Your task to perform on an android device: open app "Indeed Job Search" Image 0: 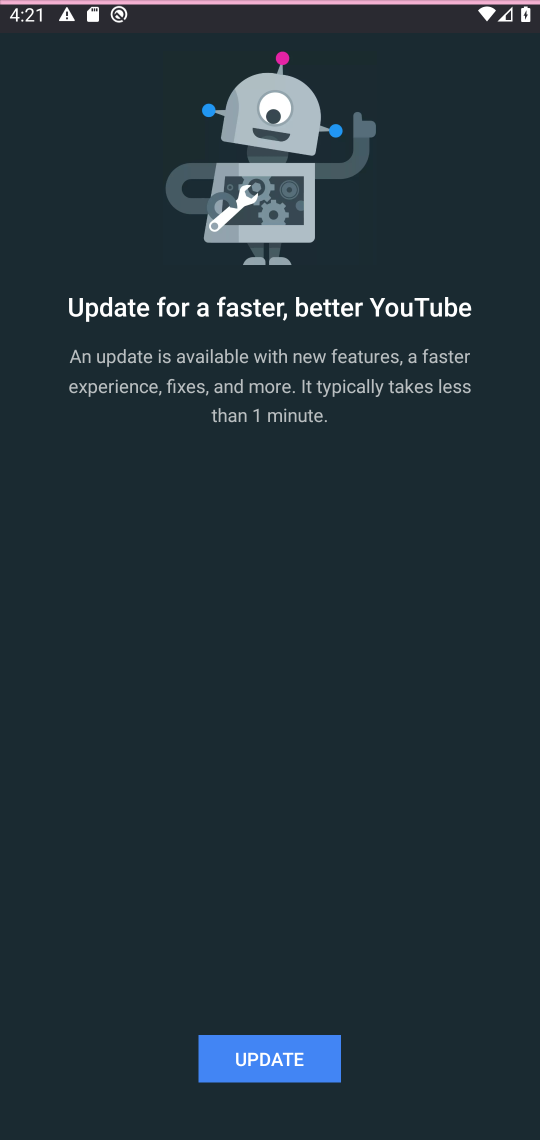
Step 0: drag from (289, 982) to (248, 254)
Your task to perform on an android device: open app "Indeed Job Search" Image 1: 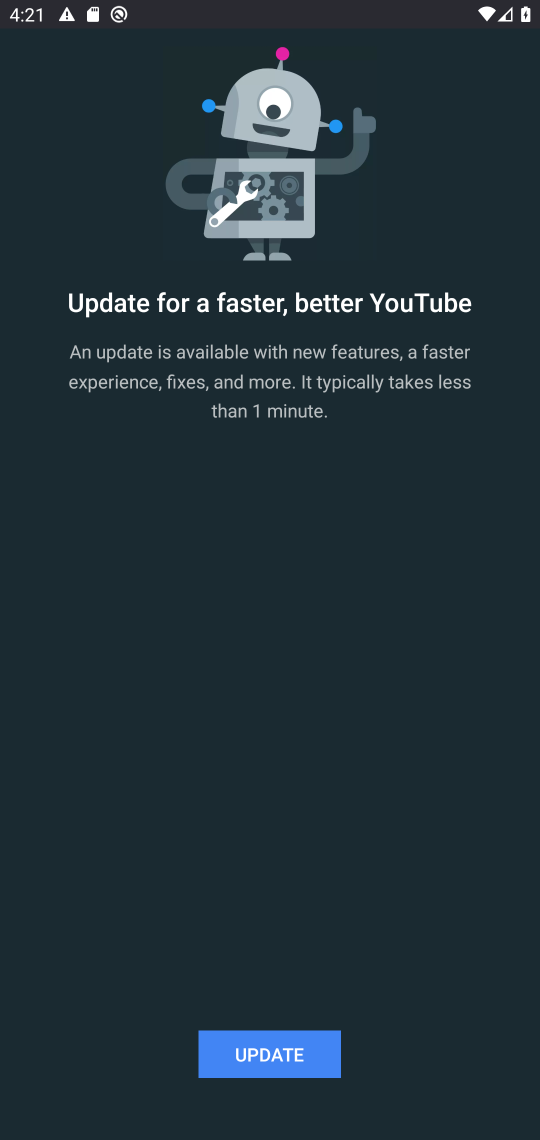
Step 1: press home button
Your task to perform on an android device: open app "Indeed Job Search" Image 2: 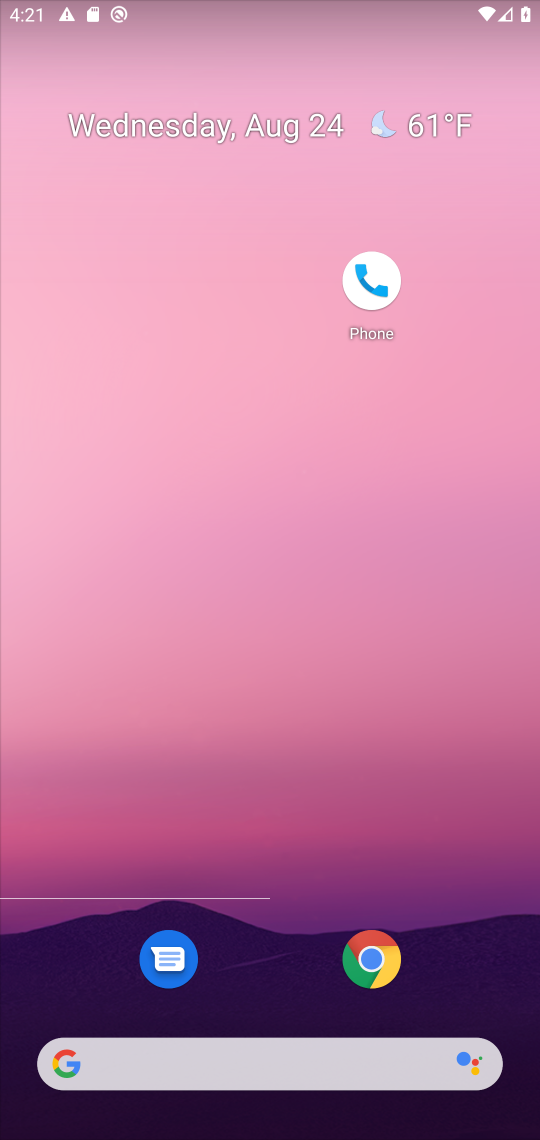
Step 2: drag from (299, 1005) to (271, 156)
Your task to perform on an android device: open app "Indeed Job Search" Image 3: 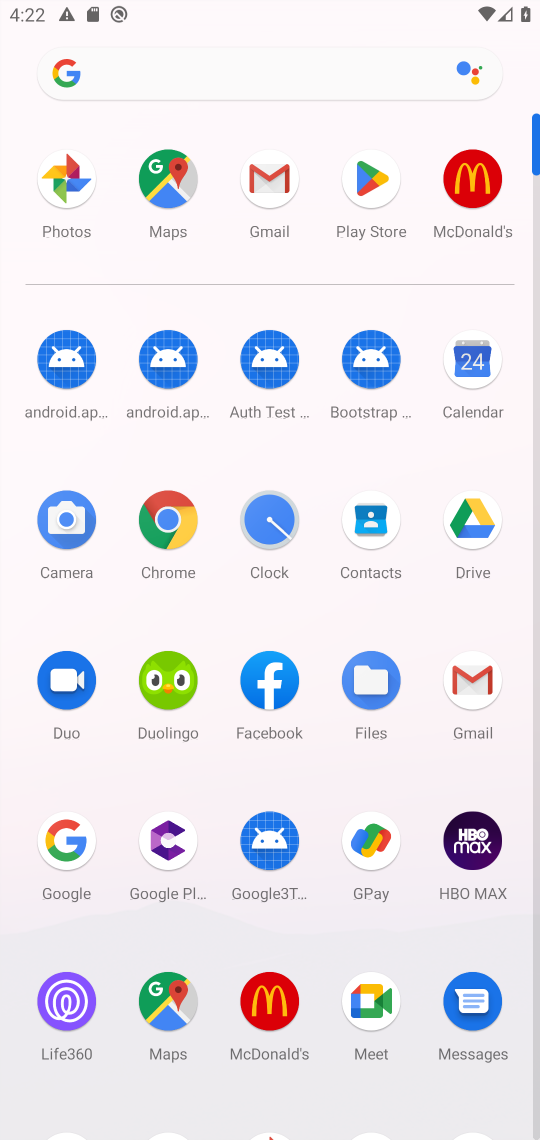
Step 3: click (367, 181)
Your task to perform on an android device: open app "Indeed Job Search" Image 4: 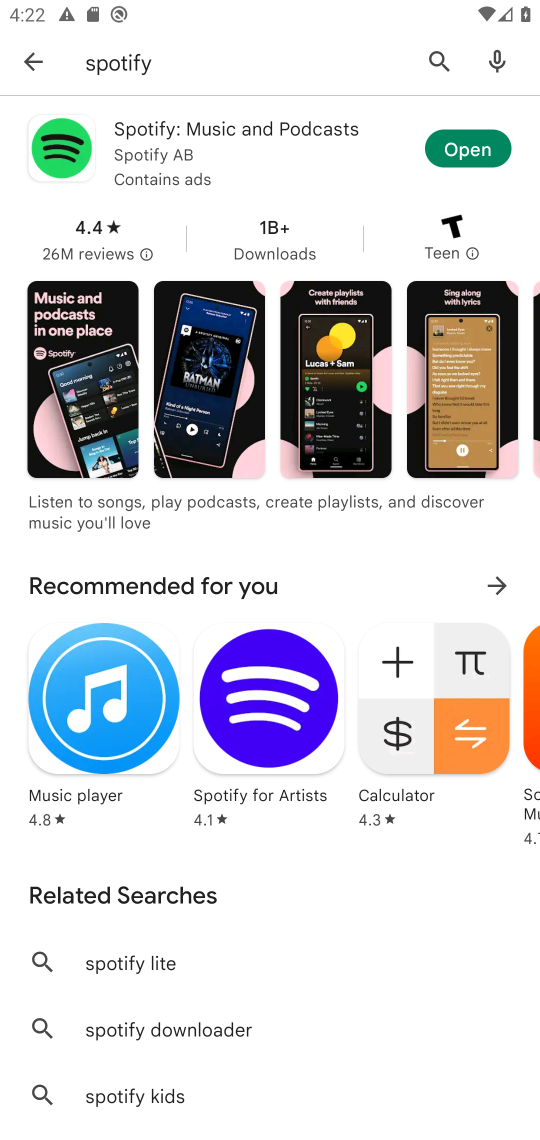
Step 4: click (438, 87)
Your task to perform on an android device: open app "Indeed Job Search" Image 5: 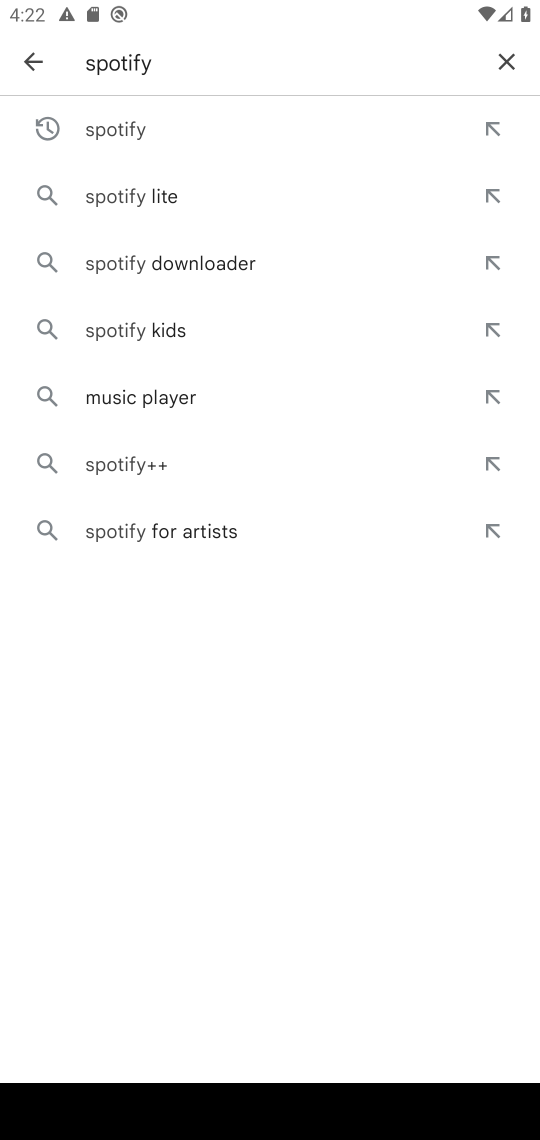
Step 5: click (509, 48)
Your task to perform on an android device: open app "Indeed Job Search" Image 6: 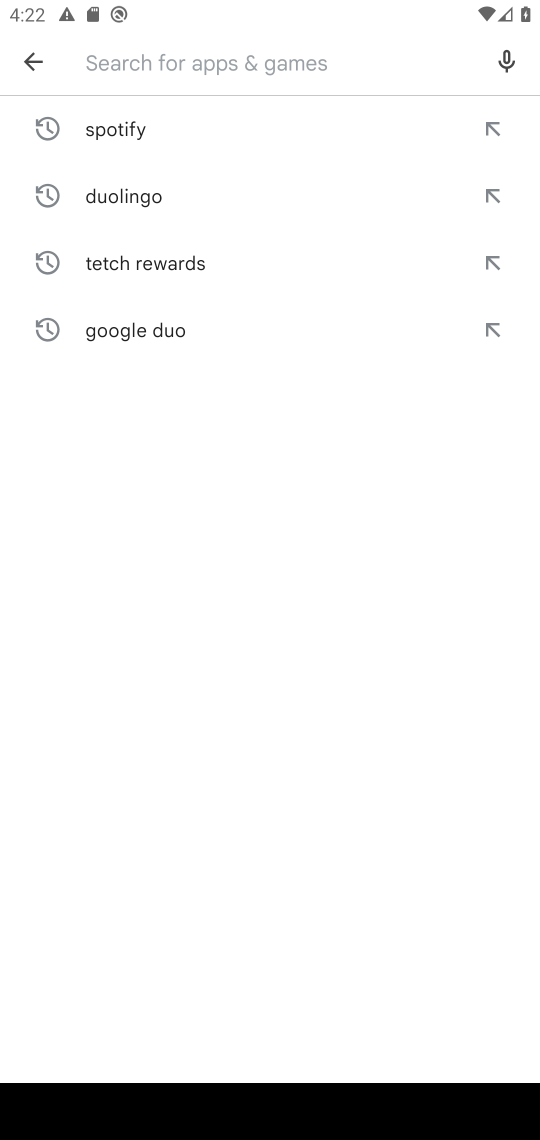
Step 6: type "indeed"
Your task to perform on an android device: open app "Indeed Job Search" Image 7: 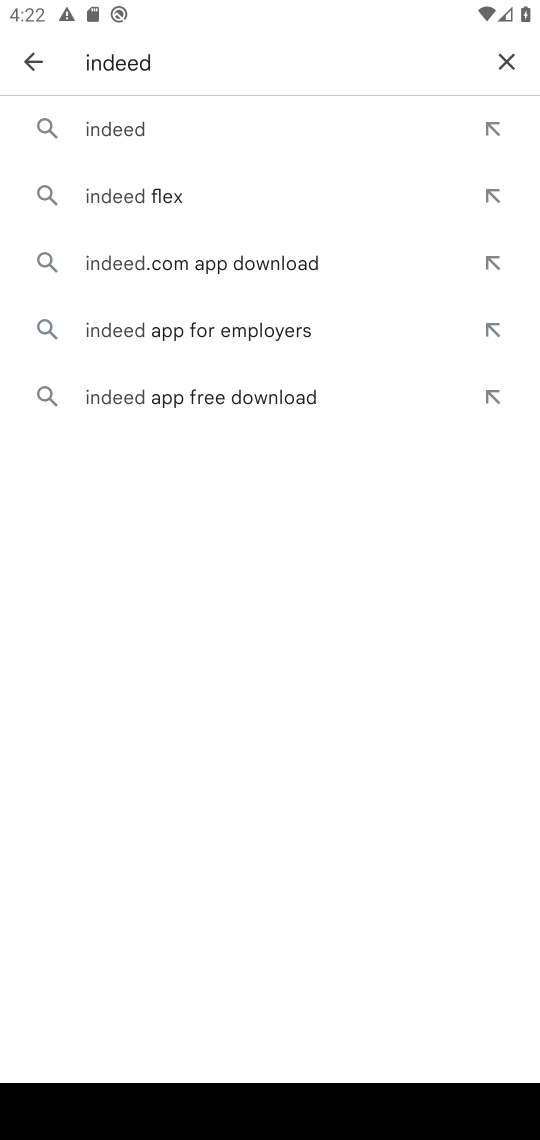
Step 7: click (132, 116)
Your task to perform on an android device: open app "Indeed Job Search" Image 8: 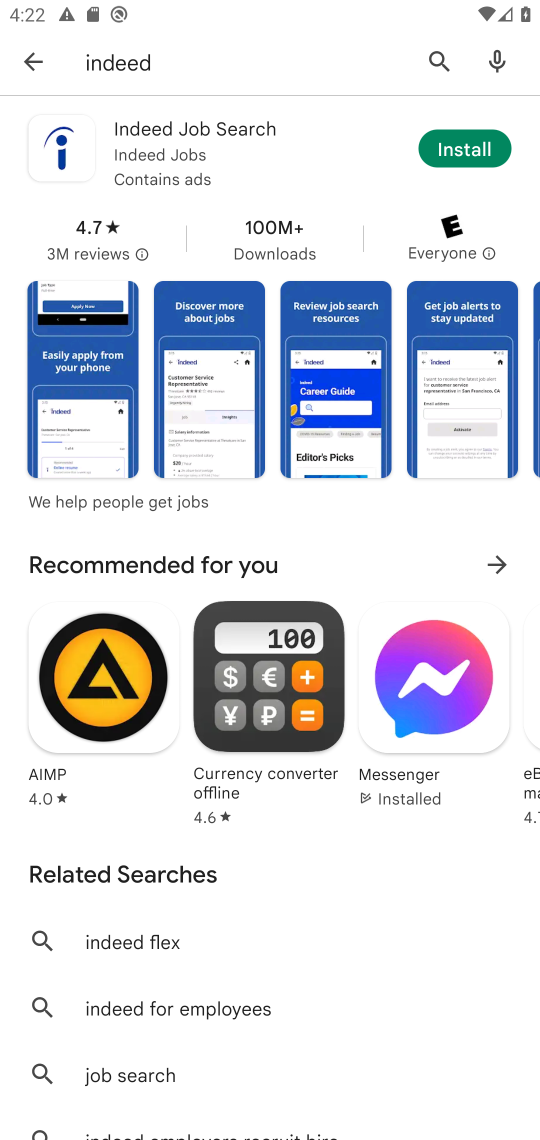
Step 8: click (421, 152)
Your task to perform on an android device: open app "Indeed Job Search" Image 9: 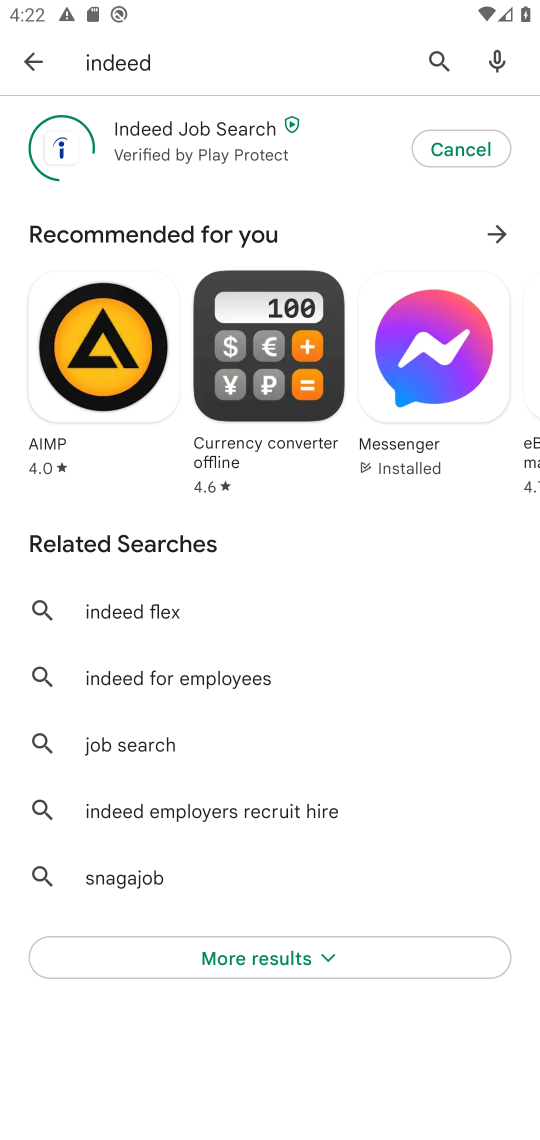
Step 9: task complete